Your task to perform on an android device: What's the weather today? Image 0: 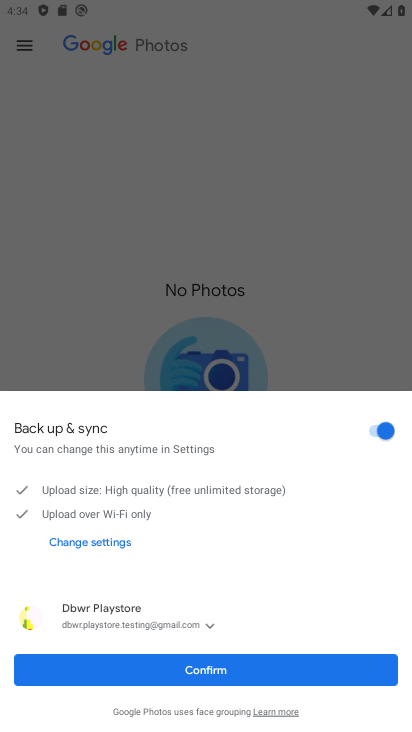
Step 0: press home button
Your task to perform on an android device: What's the weather today? Image 1: 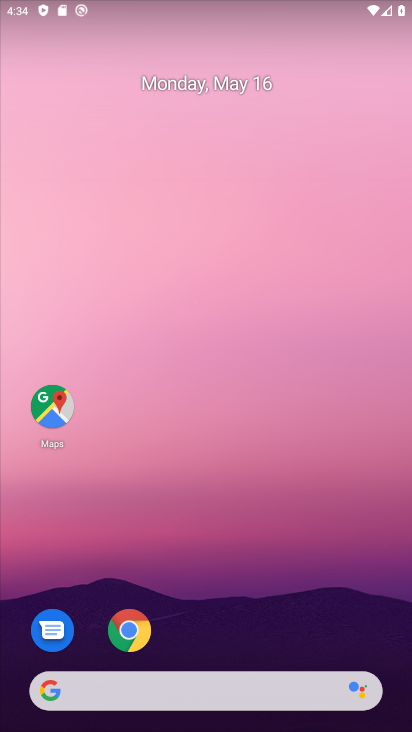
Step 1: click (128, 642)
Your task to perform on an android device: What's the weather today? Image 2: 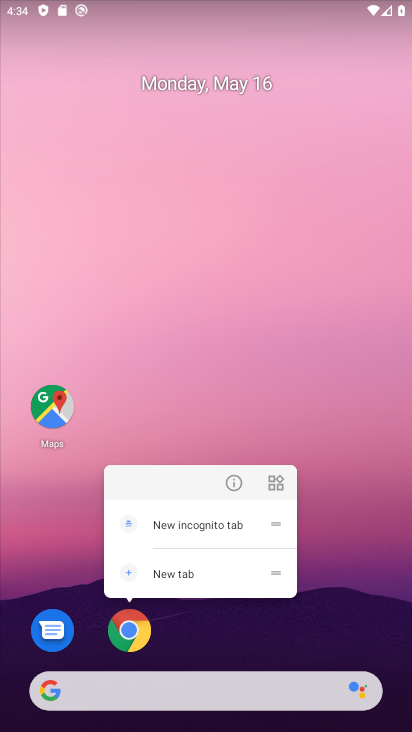
Step 2: click (131, 633)
Your task to perform on an android device: What's the weather today? Image 3: 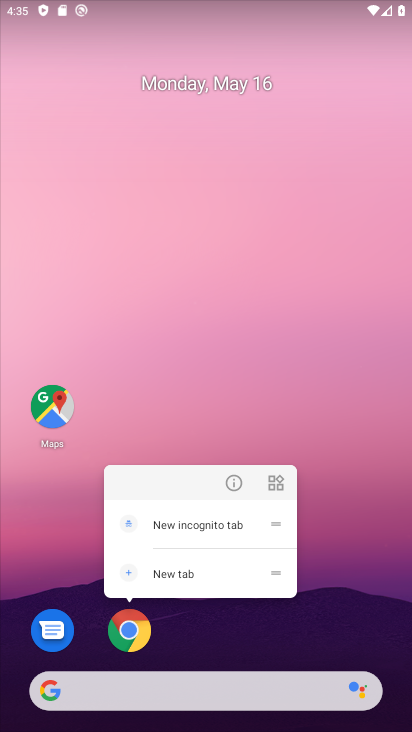
Step 3: click (90, 622)
Your task to perform on an android device: What's the weather today? Image 4: 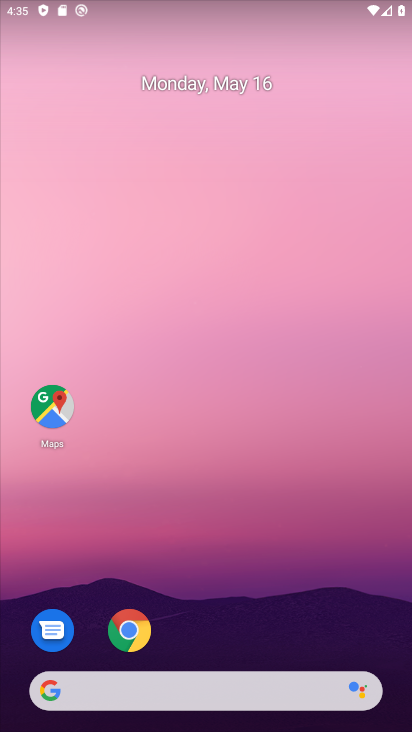
Step 4: click (133, 630)
Your task to perform on an android device: What's the weather today? Image 5: 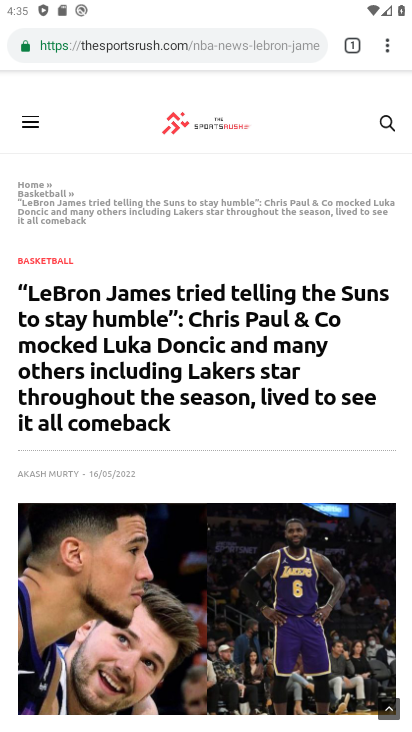
Step 5: click (385, 54)
Your task to perform on an android device: What's the weather today? Image 6: 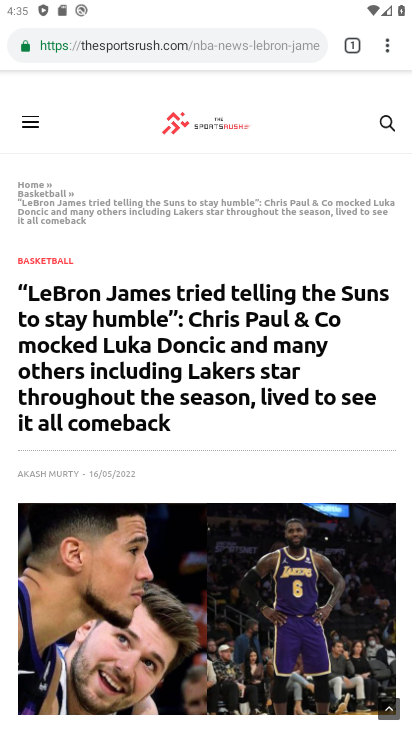
Step 6: click (106, 49)
Your task to perform on an android device: What's the weather today? Image 7: 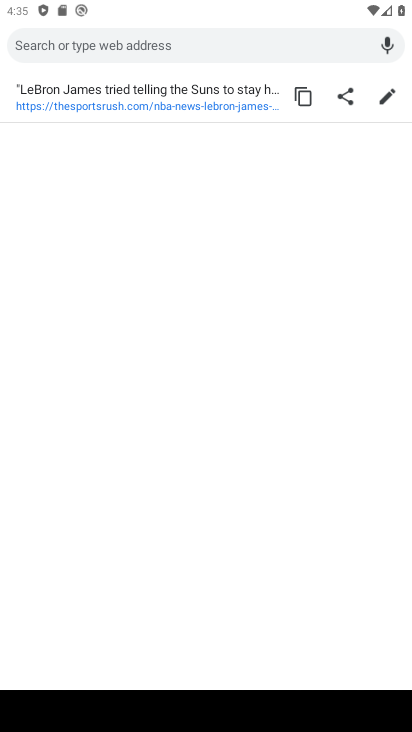
Step 7: type "What's the weather today?"
Your task to perform on an android device: What's the weather today? Image 8: 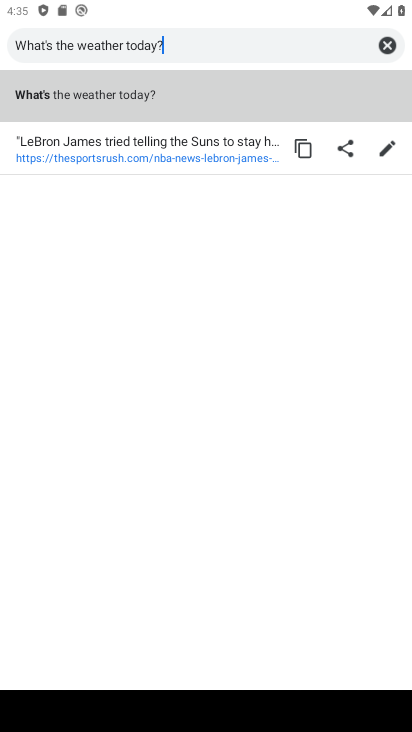
Step 8: type ""
Your task to perform on an android device: What's the weather today? Image 9: 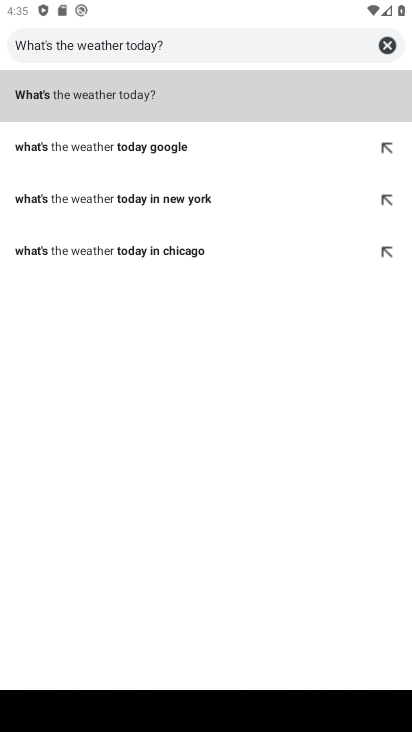
Step 9: click (91, 93)
Your task to perform on an android device: What's the weather today? Image 10: 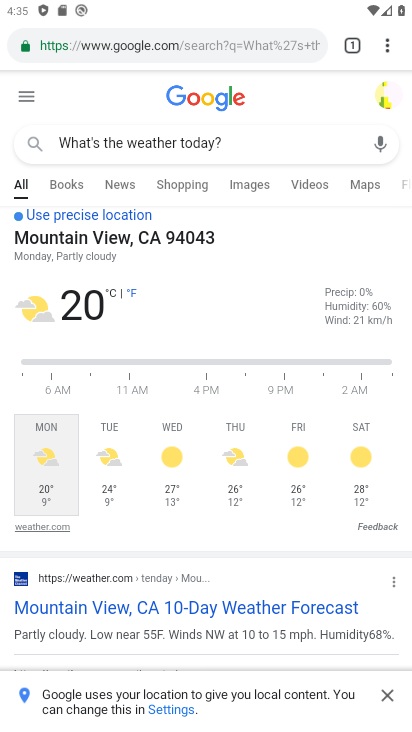
Step 10: task complete